Your task to perform on an android device: uninstall "Upside-Cash back on gas & food" Image 0: 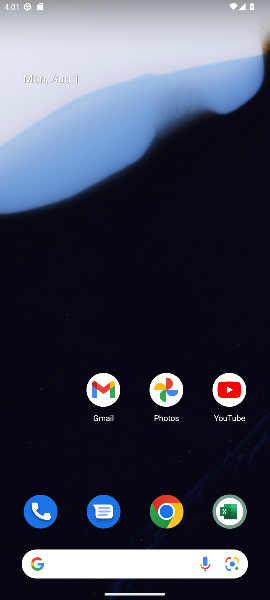
Step 0: drag from (127, 454) to (42, 0)
Your task to perform on an android device: uninstall "Upside-Cash back on gas & food" Image 1: 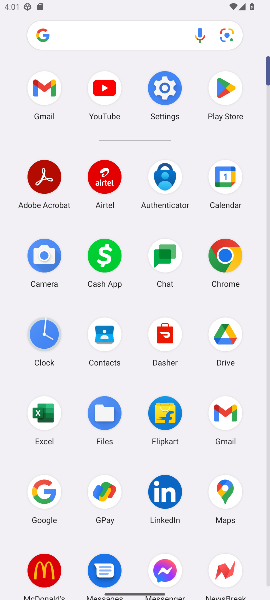
Step 1: click (222, 106)
Your task to perform on an android device: uninstall "Upside-Cash back on gas & food" Image 2: 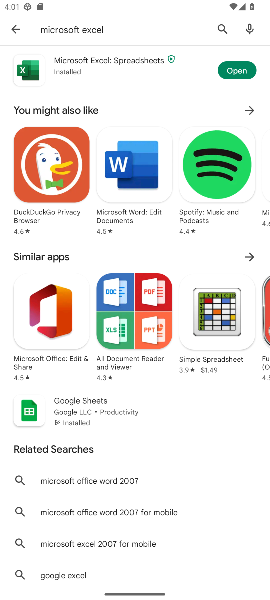
Step 2: click (18, 33)
Your task to perform on an android device: uninstall "Upside-Cash back on gas & food" Image 3: 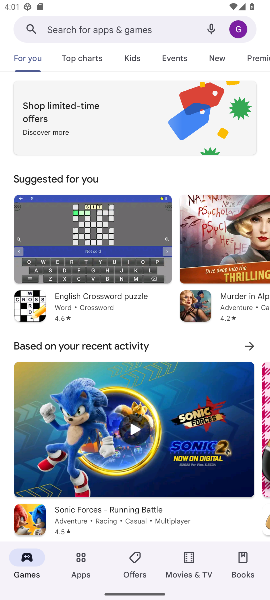
Step 3: click (74, 33)
Your task to perform on an android device: uninstall "Upside-Cash back on gas & food" Image 4: 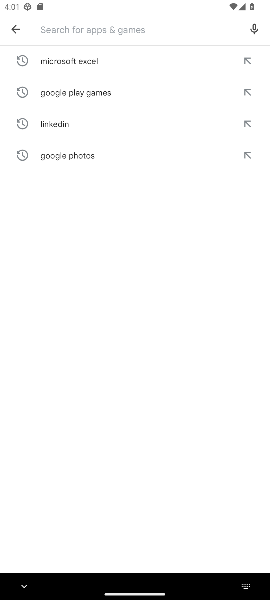
Step 4: type "Upside-Cash back on gas & food"
Your task to perform on an android device: uninstall "Upside-Cash back on gas & food" Image 5: 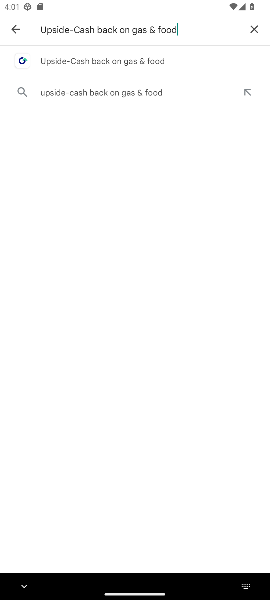
Step 5: click (120, 62)
Your task to perform on an android device: uninstall "Upside-Cash back on gas & food" Image 6: 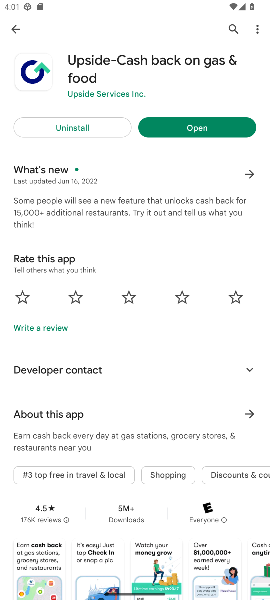
Step 6: click (97, 118)
Your task to perform on an android device: uninstall "Upside-Cash back on gas & food" Image 7: 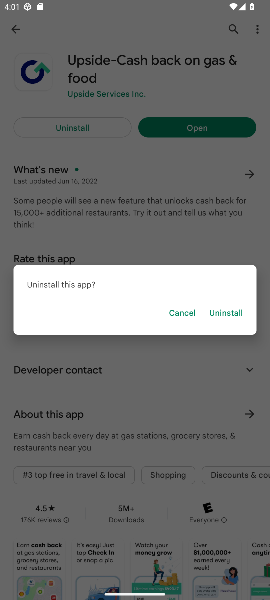
Step 7: click (220, 308)
Your task to perform on an android device: uninstall "Upside-Cash back on gas & food" Image 8: 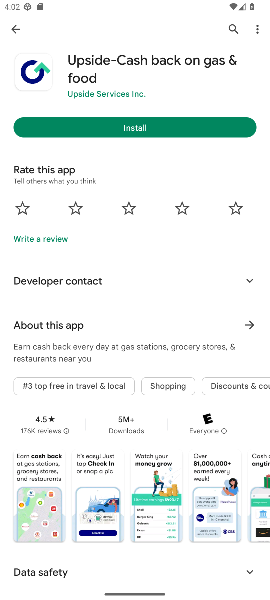
Step 8: task complete